Your task to perform on an android device: Show me popular games on the Play Store Image 0: 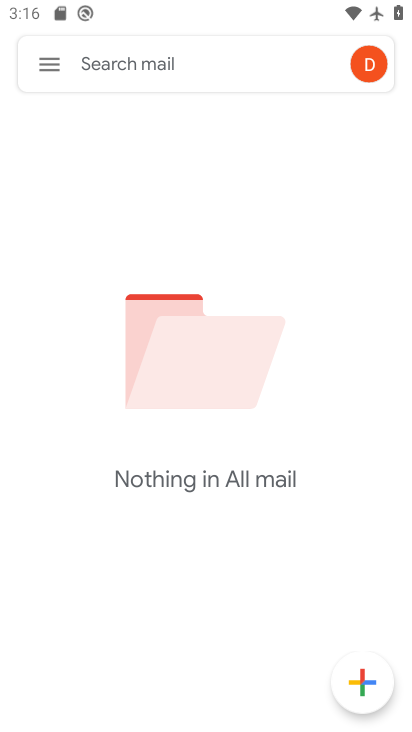
Step 0: press home button
Your task to perform on an android device: Show me popular games on the Play Store Image 1: 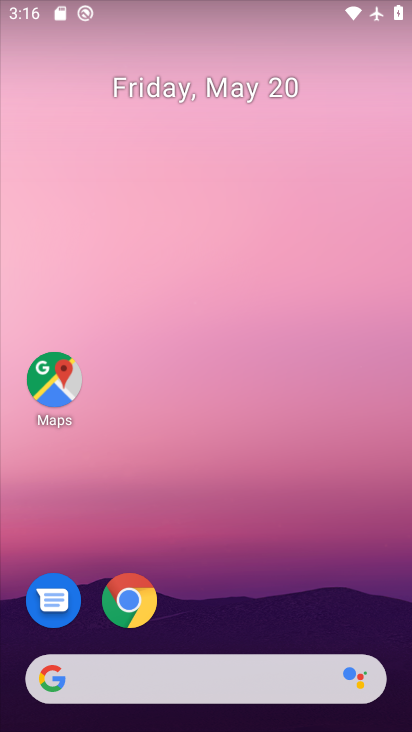
Step 1: drag from (283, 508) to (224, 43)
Your task to perform on an android device: Show me popular games on the Play Store Image 2: 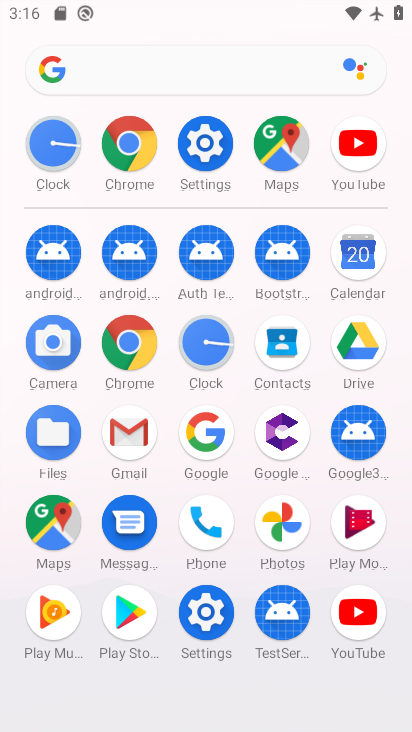
Step 2: click (128, 608)
Your task to perform on an android device: Show me popular games on the Play Store Image 3: 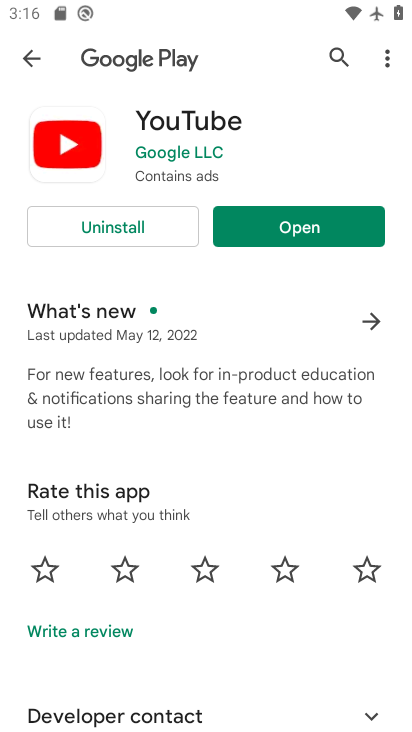
Step 3: press home button
Your task to perform on an android device: Show me popular games on the Play Store Image 4: 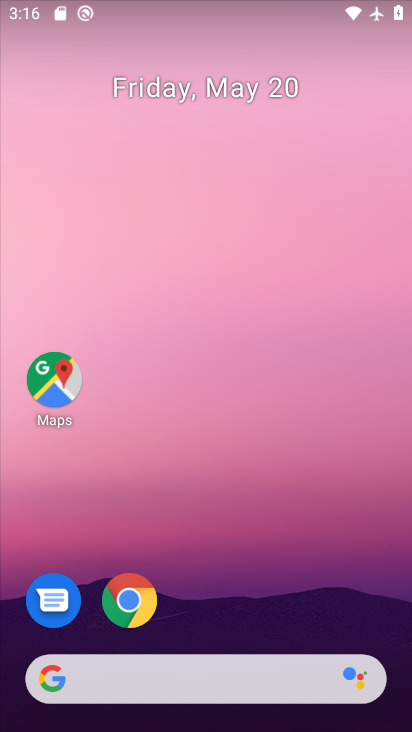
Step 4: drag from (254, 556) to (123, 39)
Your task to perform on an android device: Show me popular games on the Play Store Image 5: 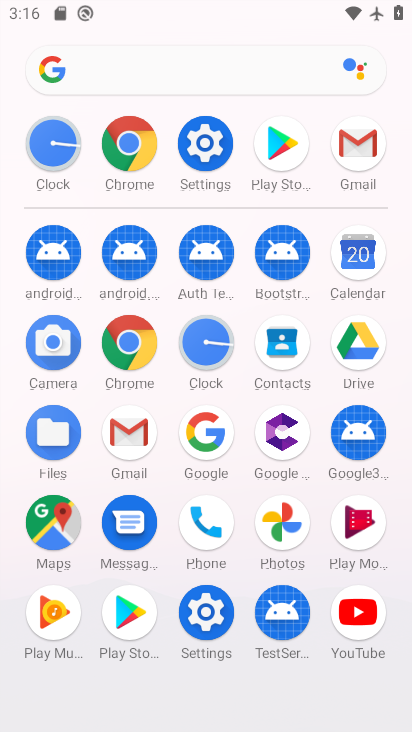
Step 5: click (135, 614)
Your task to perform on an android device: Show me popular games on the Play Store Image 6: 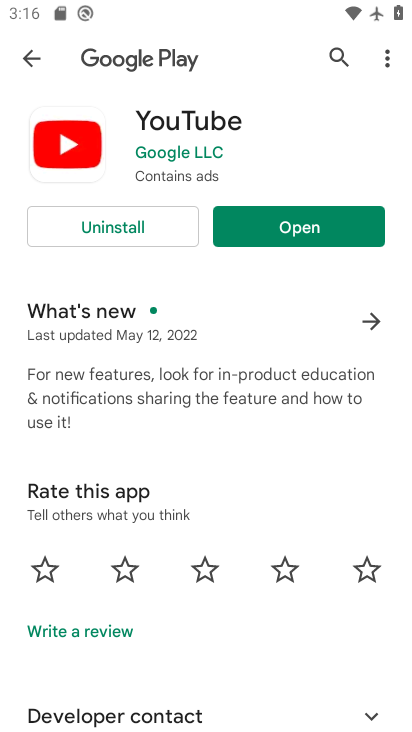
Step 6: click (24, 48)
Your task to perform on an android device: Show me popular games on the Play Store Image 7: 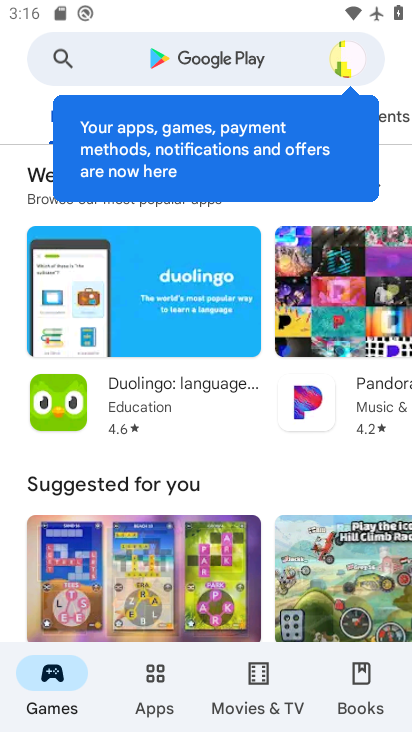
Step 7: click (27, 111)
Your task to perform on an android device: Show me popular games on the Play Store Image 8: 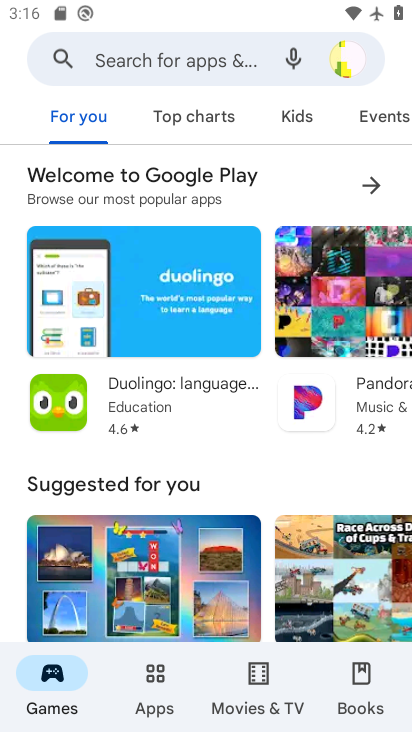
Step 8: click (185, 117)
Your task to perform on an android device: Show me popular games on the Play Store Image 9: 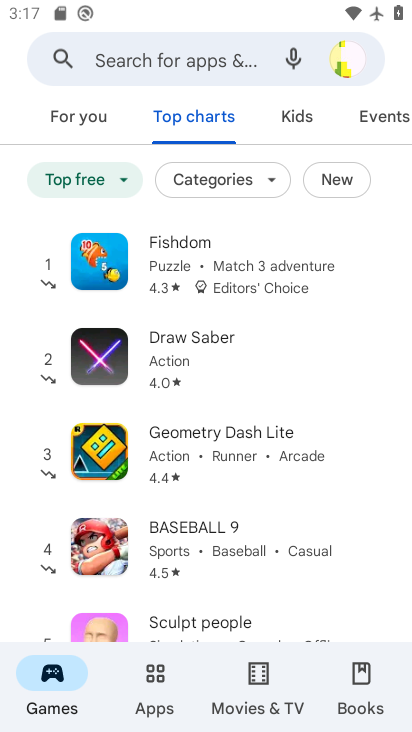
Step 9: task complete